Your task to perform on an android device: remove spam from my inbox in the gmail app Image 0: 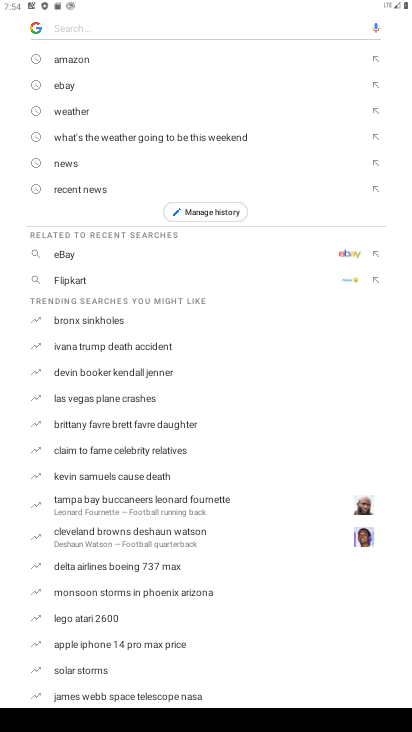
Step 0: press home button
Your task to perform on an android device: remove spam from my inbox in the gmail app Image 1: 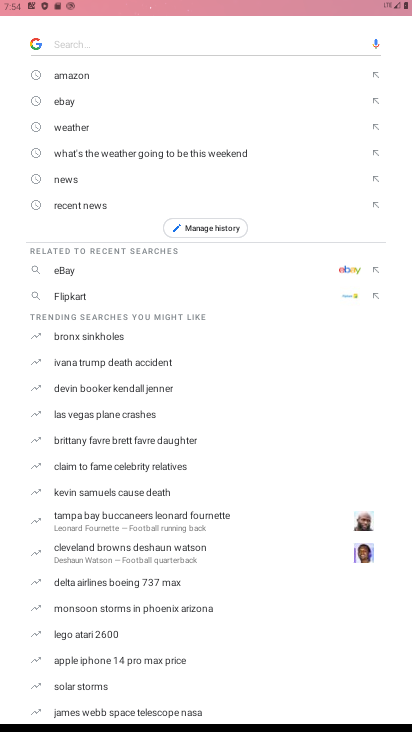
Step 1: drag from (389, 695) to (268, 2)
Your task to perform on an android device: remove spam from my inbox in the gmail app Image 2: 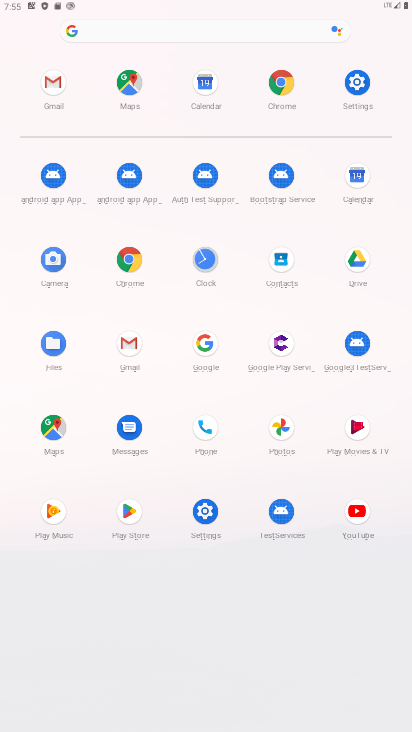
Step 2: click (111, 338)
Your task to perform on an android device: remove spam from my inbox in the gmail app Image 3: 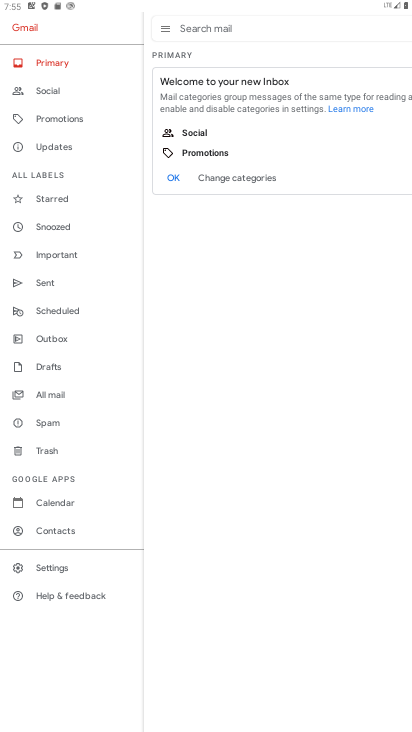
Step 3: task complete